Your task to perform on an android device: Open eBay Image 0: 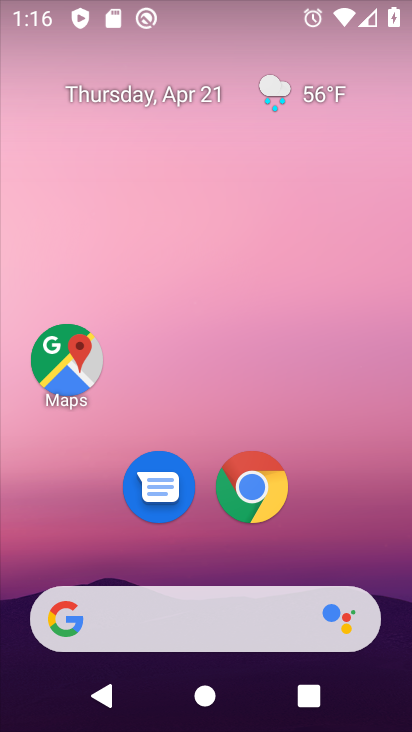
Step 0: click (253, 494)
Your task to perform on an android device: Open eBay Image 1: 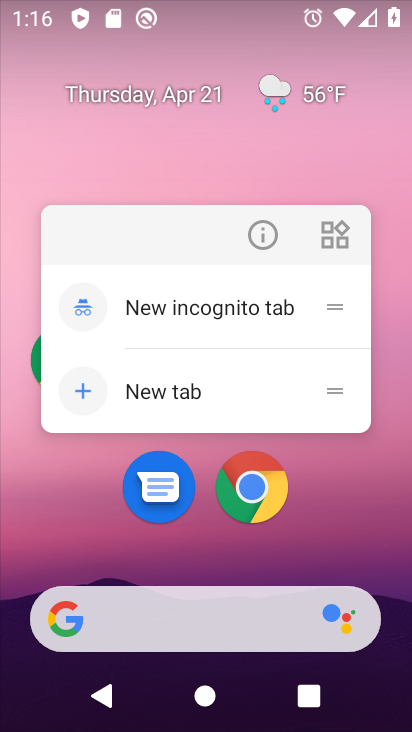
Step 1: click (253, 494)
Your task to perform on an android device: Open eBay Image 2: 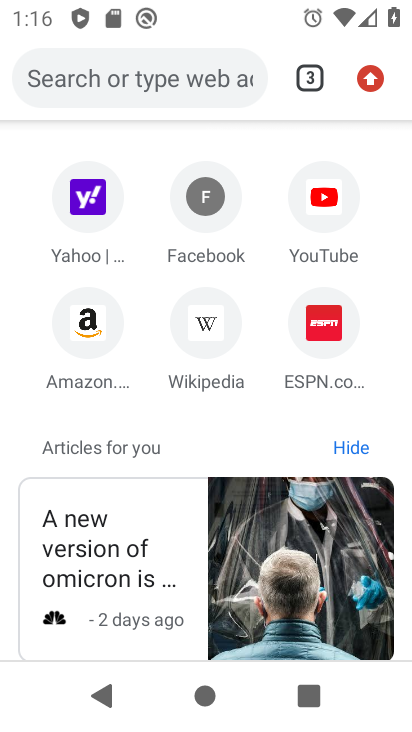
Step 2: click (189, 85)
Your task to perform on an android device: Open eBay Image 3: 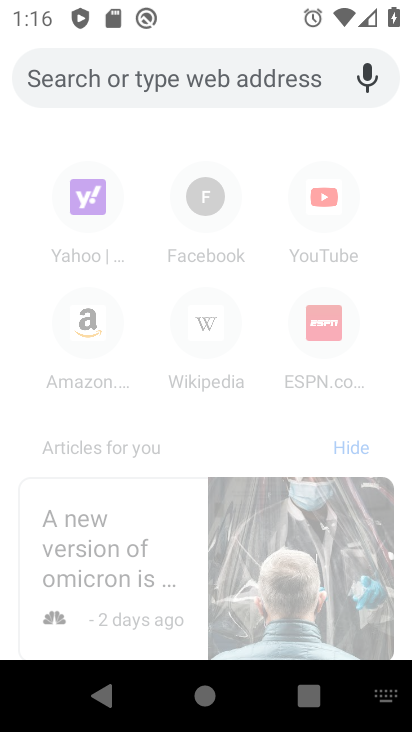
Step 3: type "ebay"
Your task to perform on an android device: Open eBay Image 4: 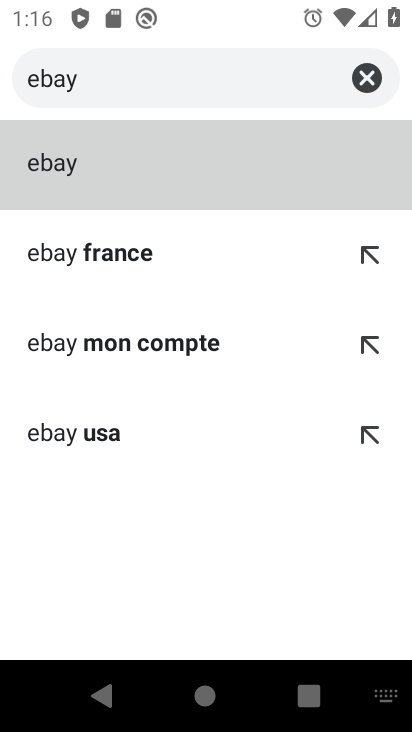
Step 4: click (27, 154)
Your task to perform on an android device: Open eBay Image 5: 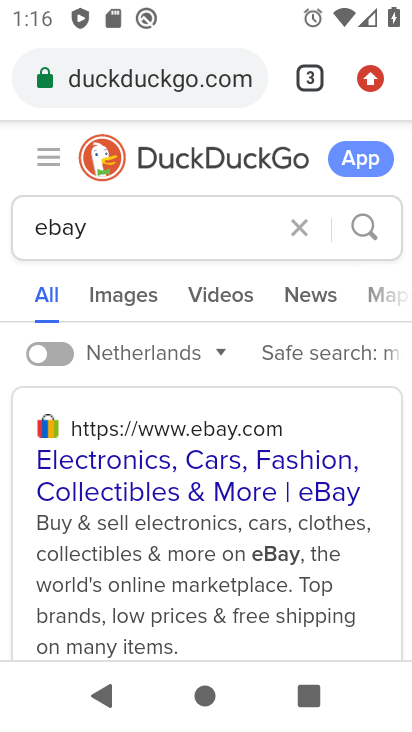
Step 5: click (109, 477)
Your task to perform on an android device: Open eBay Image 6: 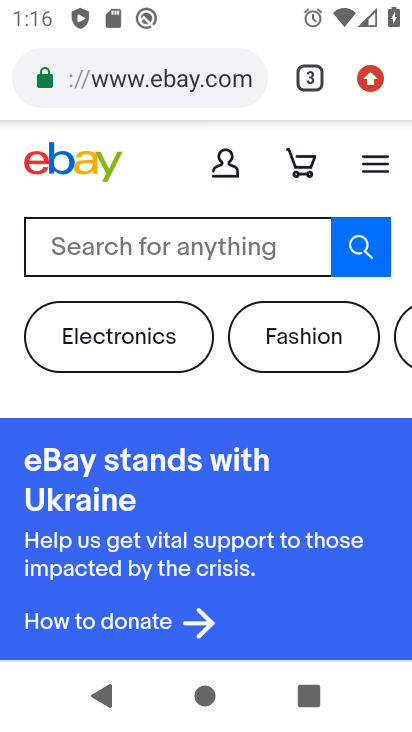
Step 6: task complete